Your task to perform on an android device: Open Youtube and go to "Your channel" Image 0: 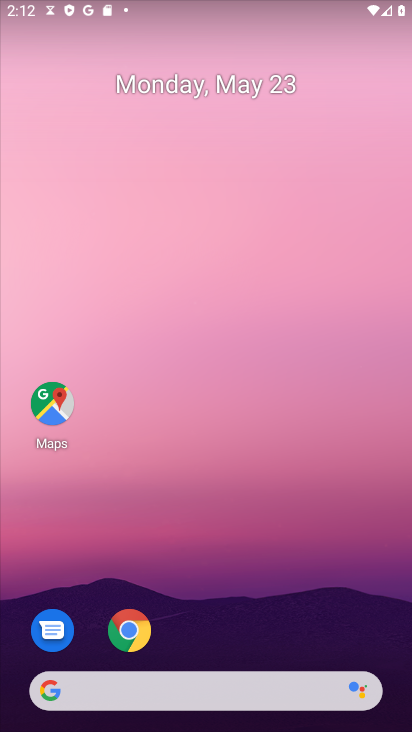
Step 0: drag from (312, 588) to (254, 172)
Your task to perform on an android device: Open Youtube and go to "Your channel" Image 1: 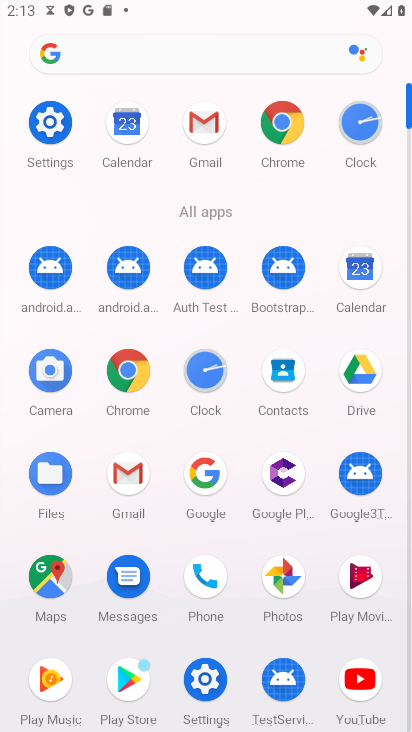
Step 1: click (350, 679)
Your task to perform on an android device: Open Youtube and go to "Your channel" Image 2: 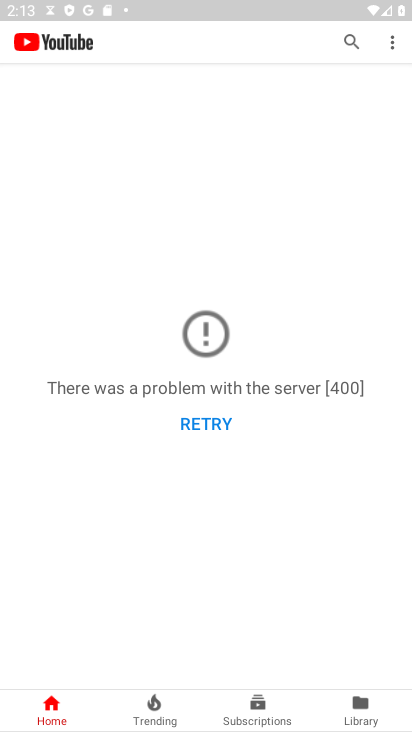
Step 2: click (207, 431)
Your task to perform on an android device: Open Youtube and go to "Your channel" Image 3: 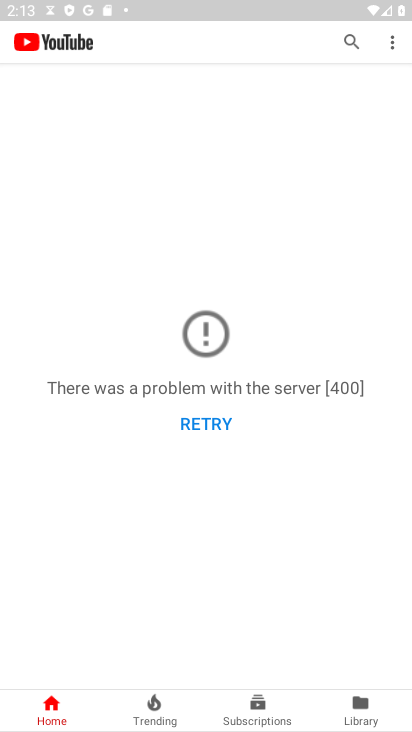
Step 3: task complete